Your task to perform on an android device: Open sound settings Image 0: 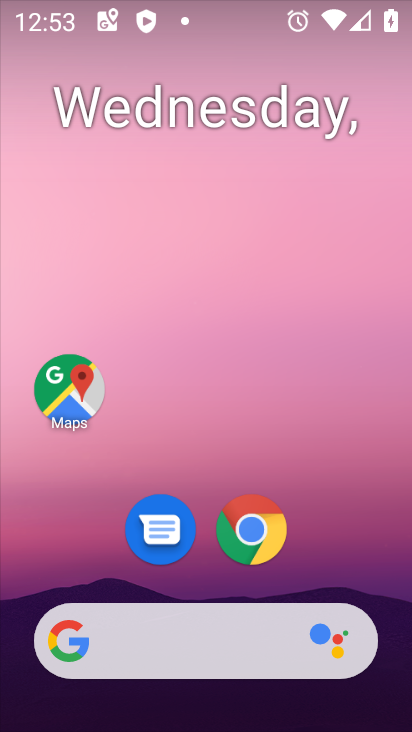
Step 0: drag from (402, 644) to (345, 150)
Your task to perform on an android device: Open sound settings Image 1: 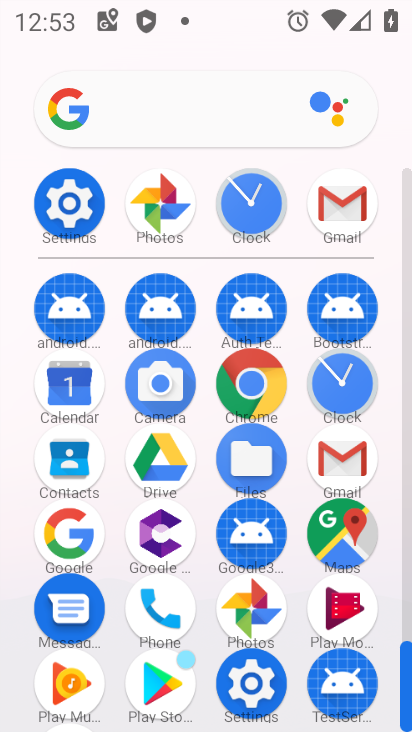
Step 1: click (252, 684)
Your task to perform on an android device: Open sound settings Image 2: 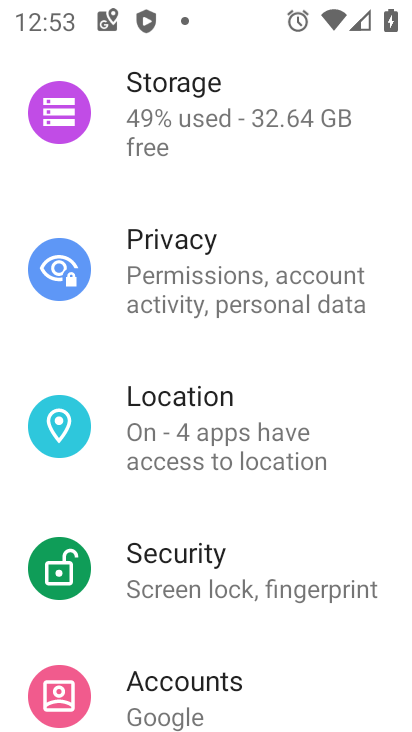
Step 2: drag from (375, 148) to (376, 616)
Your task to perform on an android device: Open sound settings Image 3: 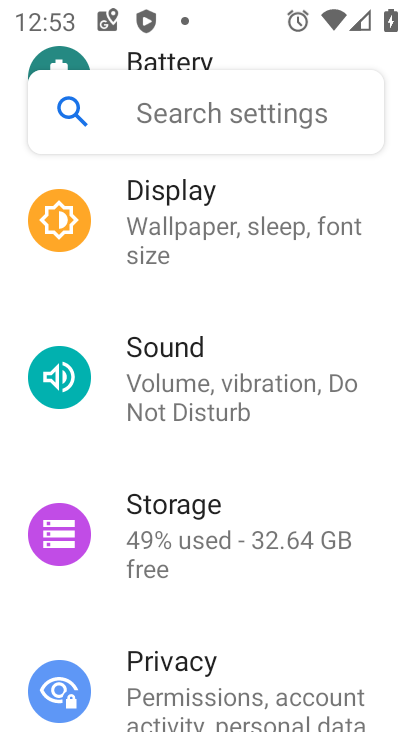
Step 3: click (172, 364)
Your task to perform on an android device: Open sound settings Image 4: 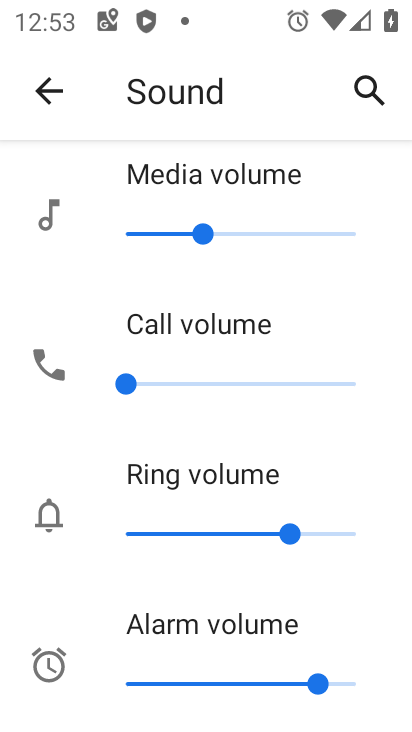
Step 4: drag from (321, 628) to (253, 158)
Your task to perform on an android device: Open sound settings Image 5: 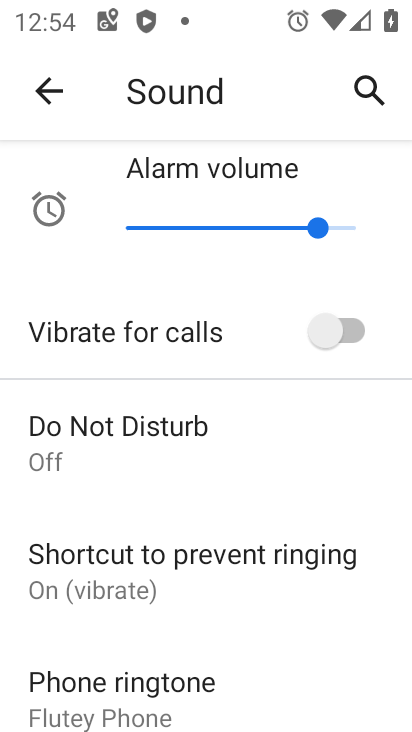
Step 5: drag from (225, 523) to (253, 155)
Your task to perform on an android device: Open sound settings Image 6: 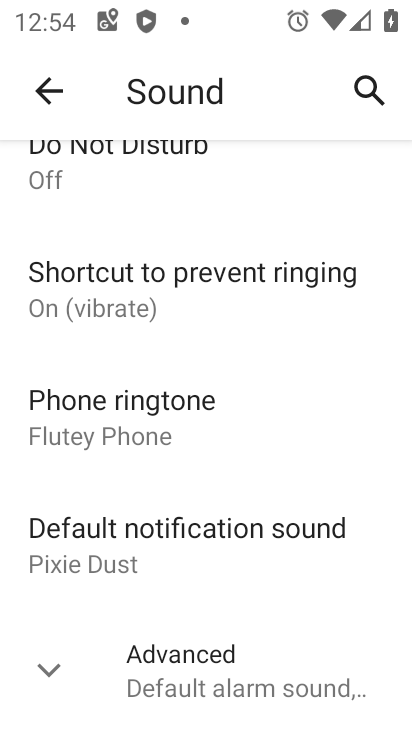
Step 6: click (45, 669)
Your task to perform on an android device: Open sound settings Image 7: 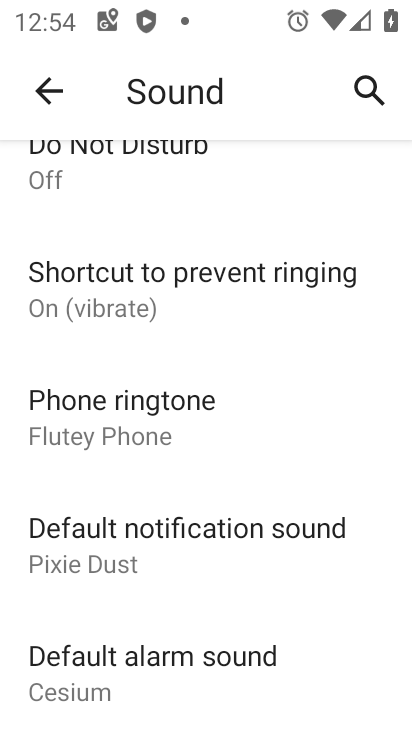
Step 7: task complete